Your task to perform on an android device: Open ESPN.com Image 0: 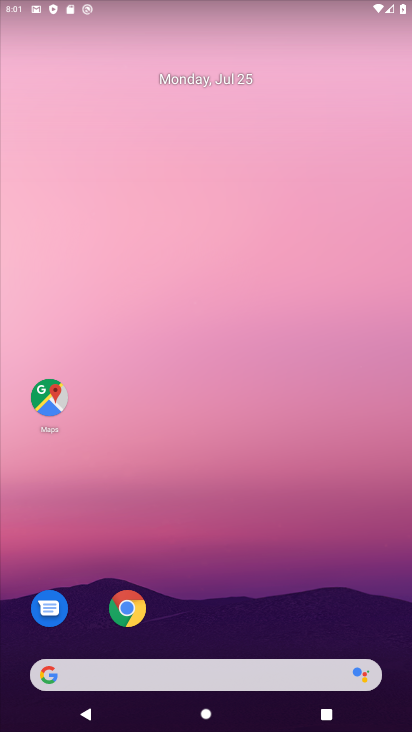
Step 0: click (207, 686)
Your task to perform on an android device: Open ESPN.com Image 1: 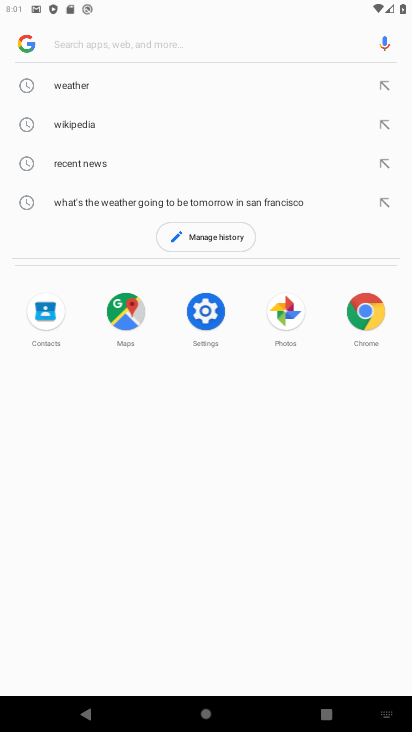
Step 1: type "espn.com"
Your task to perform on an android device: Open ESPN.com Image 2: 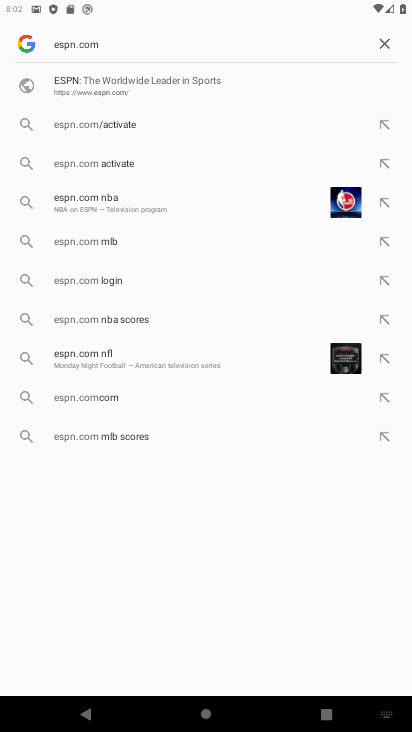
Step 2: click (141, 84)
Your task to perform on an android device: Open ESPN.com Image 3: 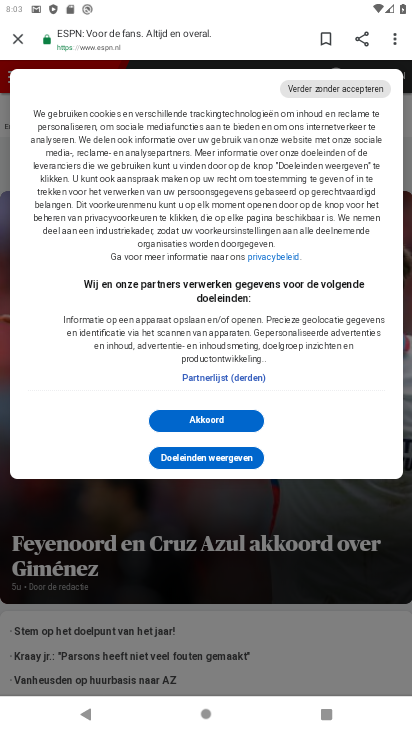
Step 3: task complete